Your task to perform on an android device: add a contact in the contacts app Image 0: 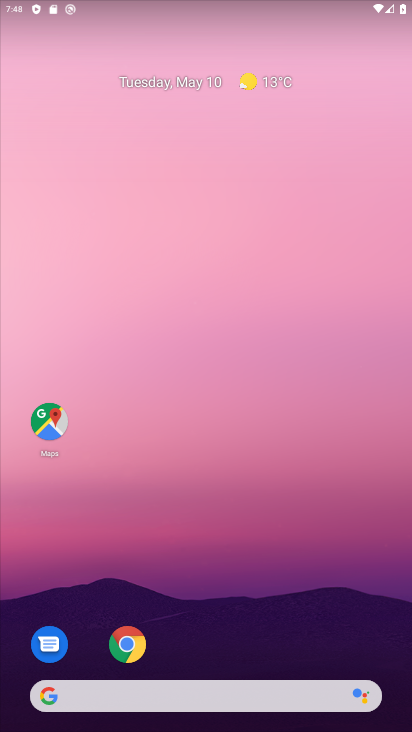
Step 0: drag from (260, 643) to (275, 202)
Your task to perform on an android device: add a contact in the contacts app Image 1: 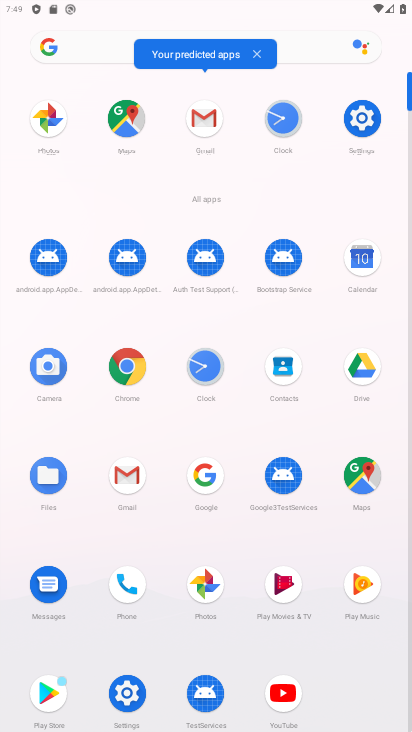
Step 1: click (293, 372)
Your task to perform on an android device: add a contact in the contacts app Image 2: 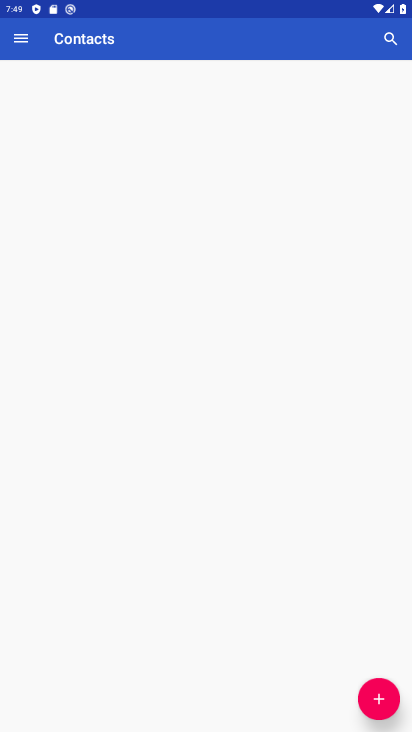
Step 2: click (383, 707)
Your task to perform on an android device: add a contact in the contacts app Image 3: 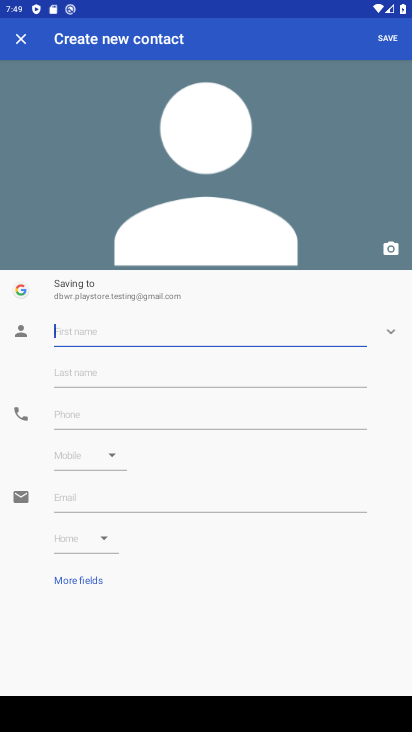
Step 3: type "gugugu"
Your task to perform on an android device: add a contact in the contacts app Image 4: 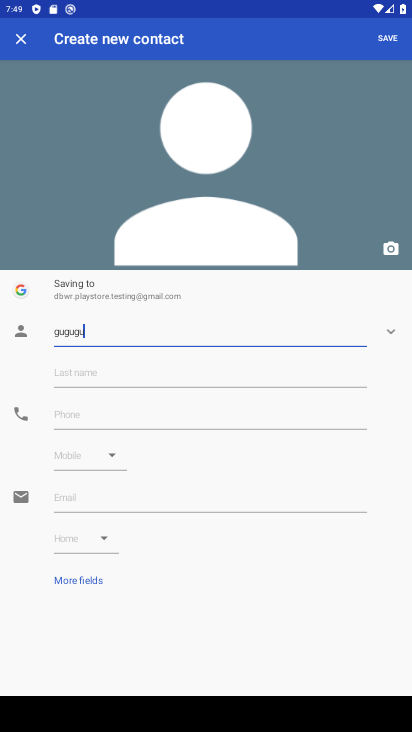
Step 4: click (127, 422)
Your task to perform on an android device: add a contact in the contacts app Image 5: 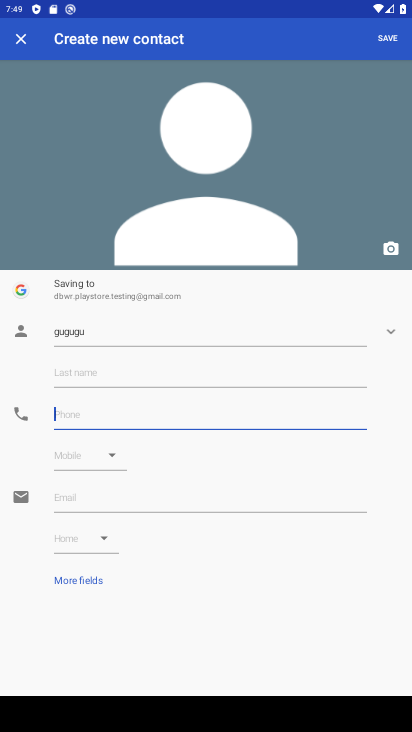
Step 5: type "977687686"
Your task to perform on an android device: add a contact in the contacts app Image 6: 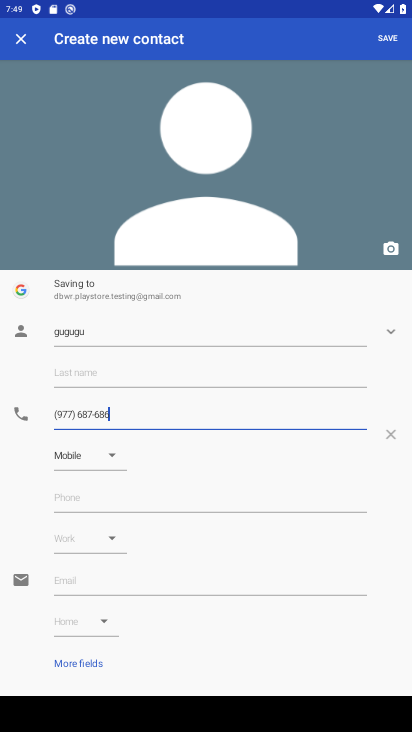
Step 6: click (386, 45)
Your task to perform on an android device: add a contact in the contacts app Image 7: 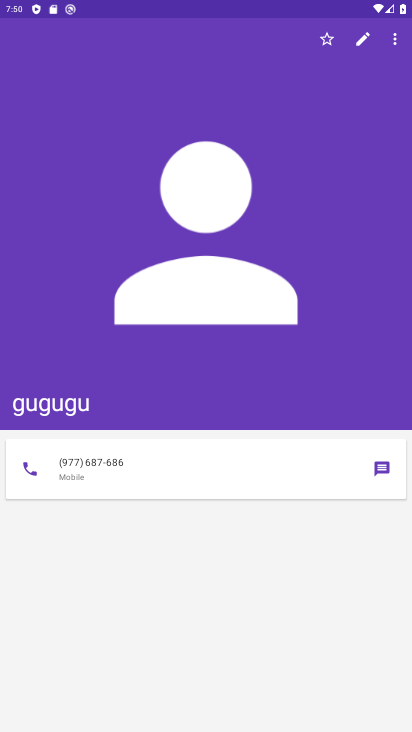
Step 7: task complete